Your task to perform on an android device: Open notification settings Image 0: 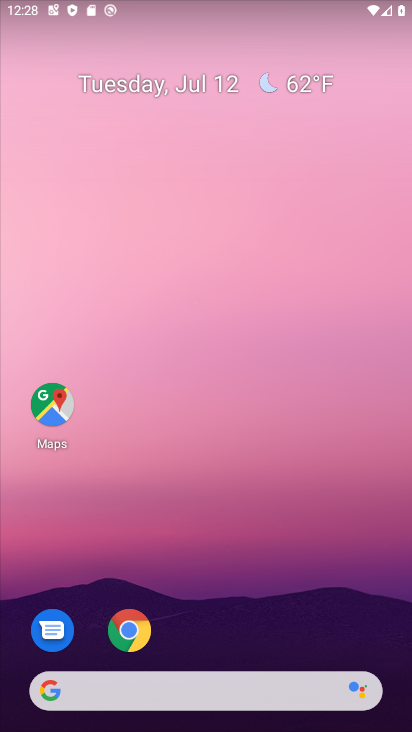
Step 0: drag from (247, 542) to (163, 168)
Your task to perform on an android device: Open notification settings Image 1: 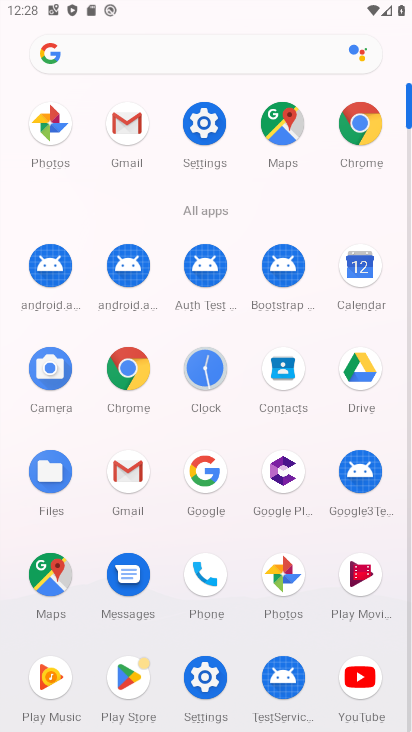
Step 1: click (199, 115)
Your task to perform on an android device: Open notification settings Image 2: 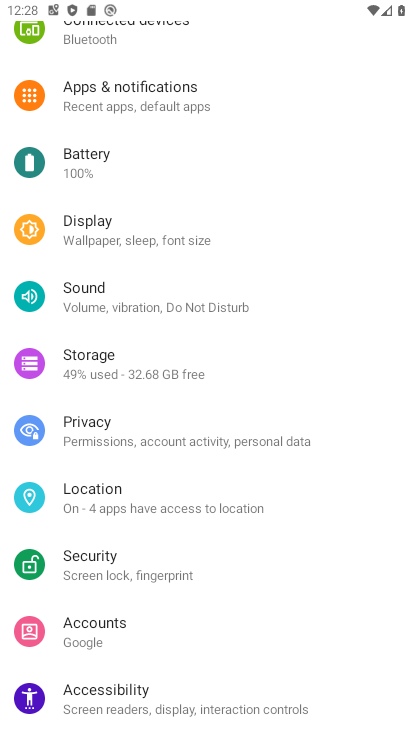
Step 2: click (141, 88)
Your task to perform on an android device: Open notification settings Image 3: 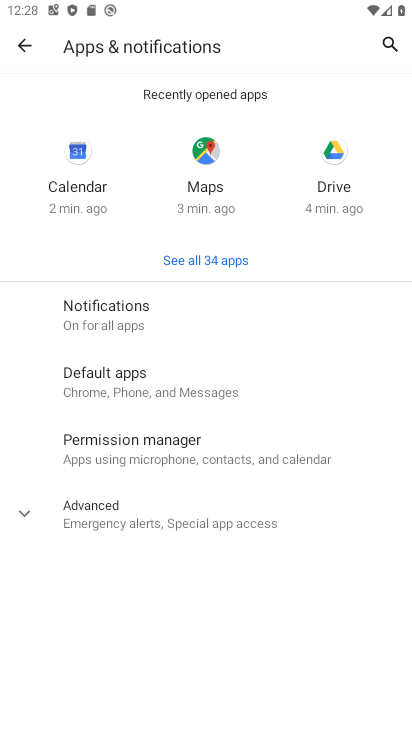
Step 3: click (114, 310)
Your task to perform on an android device: Open notification settings Image 4: 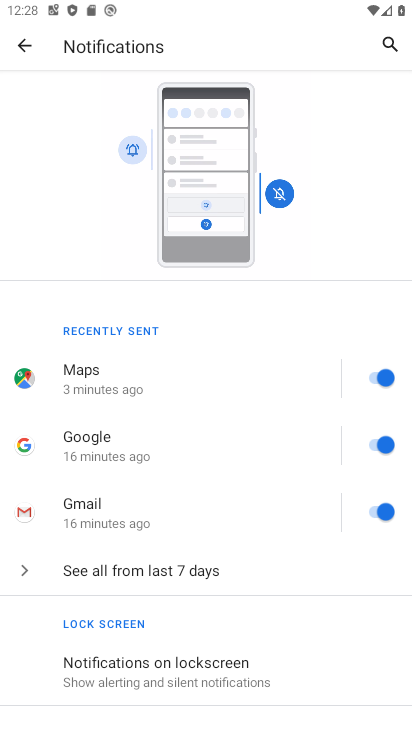
Step 4: task complete